Your task to perform on an android device: Clear the cart on walmart.com. Add "usb-a to usb-b" to the cart on walmart.com, then select checkout. Image 0: 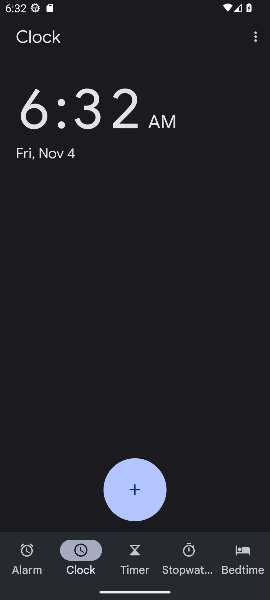
Step 0: press home button
Your task to perform on an android device: Clear the cart on walmart.com. Add "usb-a to usb-b" to the cart on walmart.com, then select checkout. Image 1: 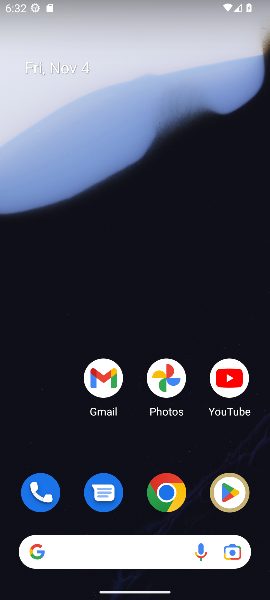
Step 1: drag from (134, 458) to (153, 42)
Your task to perform on an android device: Clear the cart on walmart.com. Add "usb-a to usb-b" to the cart on walmart.com, then select checkout. Image 2: 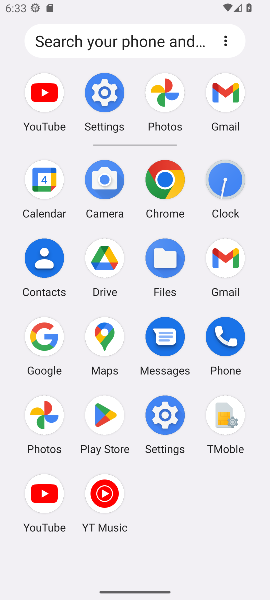
Step 2: click (166, 176)
Your task to perform on an android device: Clear the cart on walmart.com. Add "usb-a to usb-b" to the cart on walmart.com, then select checkout. Image 3: 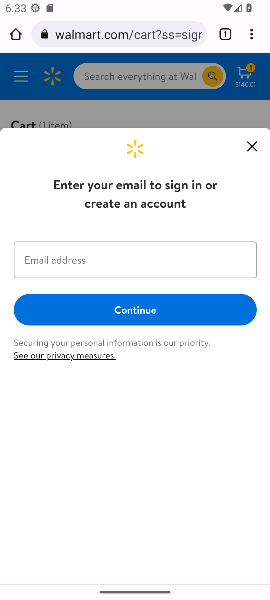
Step 3: click (148, 29)
Your task to perform on an android device: Clear the cart on walmart.com. Add "usb-a to usb-b" to the cart on walmart.com, then select checkout. Image 4: 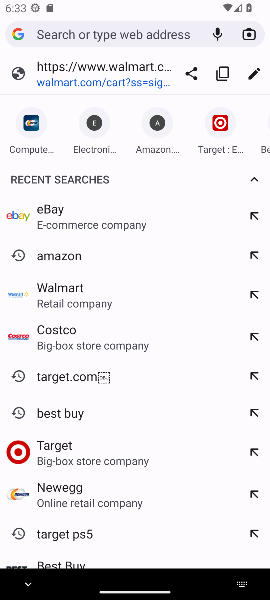
Step 4: type "walmart.com"
Your task to perform on an android device: Clear the cart on walmart.com. Add "usb-a to usb-b" to the cart on walmart.com, then select checkout. Image 5: 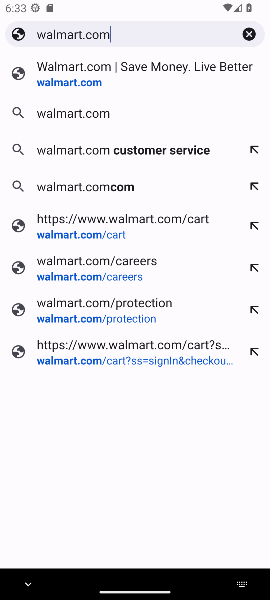
Step 5: press enter
Your task to perform on an android device: Clear the cart on walmart.com. Add "usb-a to usb-b" to the cart on walmart.com, then select checkout. Image 6: 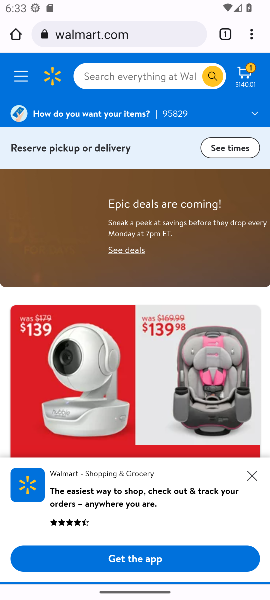
Step 6: click (142, 76)
Your task to perform on an android device: Clear the cart on walmart.com. Add "usb-a to usb-b" to the cart on walmart.com, then select checkout. Image 7: 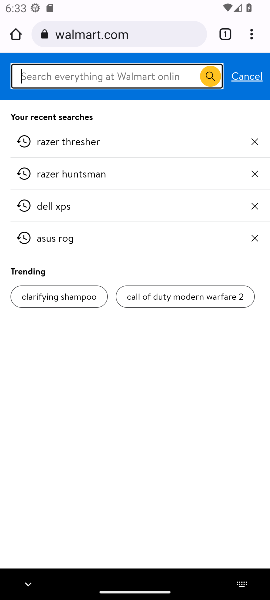
Step 7: type "usb-a to usb-b"
Your task to perform on an android device: Clear the cart on walmart.com. Add "usb-a to usb-b" to the cart on walmart.com, then select checkout. Image 8: 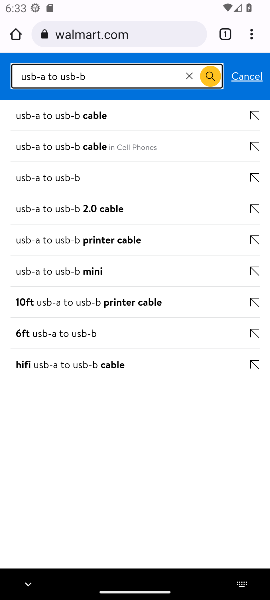
Step 8: press enter
Your task to perform on an android device: Clear the cart on walmart.com. Add "usb-a to usb-b" to the cart on walmart.com, then select checkout. Image 9: 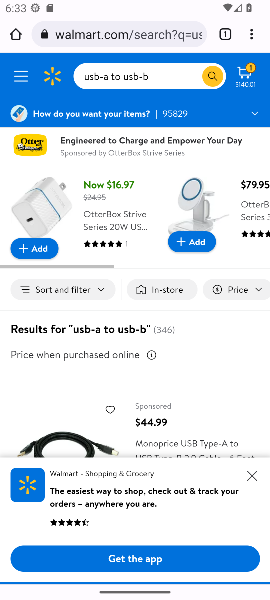
Step 9: drag from (217, 421) to (217, 67)
Your task to perform on an android device: Clear the cart on walmart.com. Add "usb-a to usb-b" to the cart on walmart.com, then select checkout. Image 10: 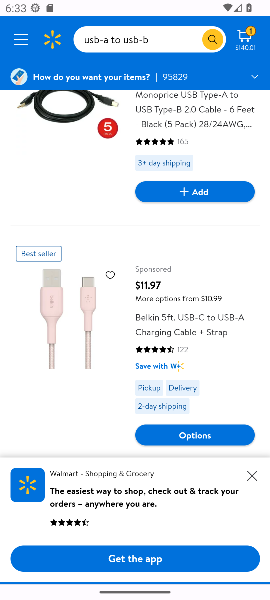
Step 10: click (246, 39)
Your task to perform on an android device: Clear the cart on walmart.com. Add "usb-a to usb-b" to the cart on walmart.com, then select checkout. Image 11: 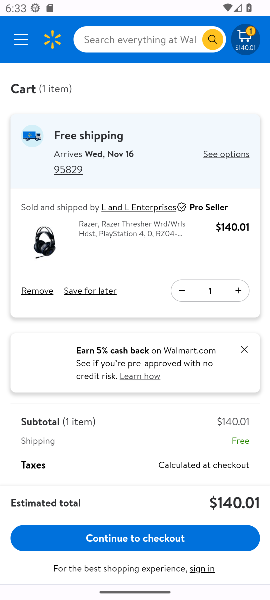
Step 11: click (41, 292)
Your task to perform on an android device: Clear the cart on walmart.com. Add "usb-a to usb-b" to the cart on walmart.com, then select checkout. Image 12: 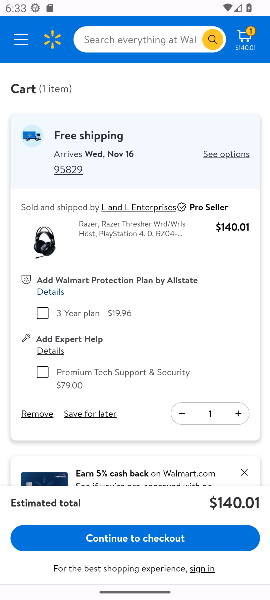
Step 12: click (46, 406)
Your task to perform on an android device: Clear the cart on walmart.com. Add "usb-a to usb-b" to the cart on walmart.com, then select checkout. Image 13: 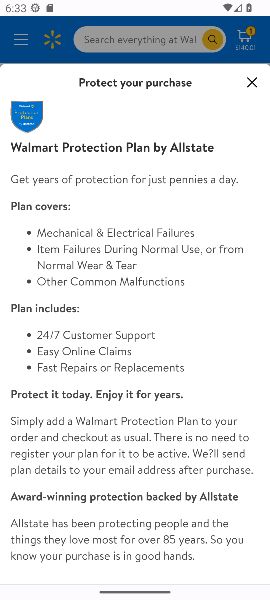
Step 13: click (38, 412)
Your task to perform on an android device: Clear the cart on walmart.com. Add "usb-a to usb-b" to the cart on walmart.com, then select checkout. Image 14: 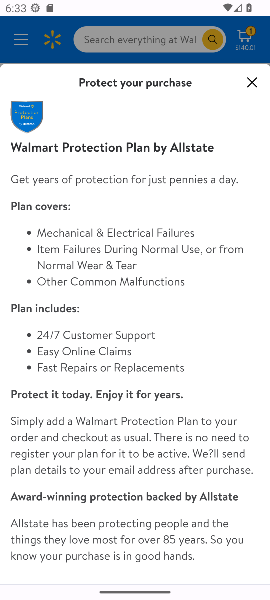
Step 14: click (250, 83)
Your task to perform on an android device: Clear the cart on walmart.com. Add "usb-a to usb-b" to the cart on walmart.com, then select checkout. Image 15: 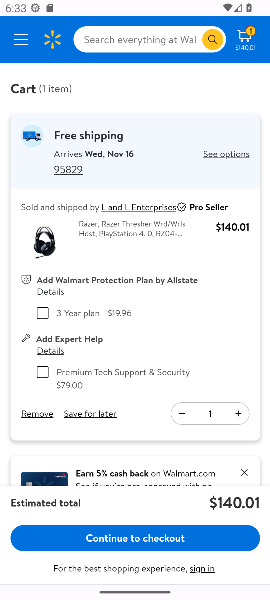
Step 15: click (36, 416)
Your task to perform on an android device: Clear the cart on walmart.com. Add "usb-a to usb-b" to the cart on walmart.com, then select checkout. Image 16: 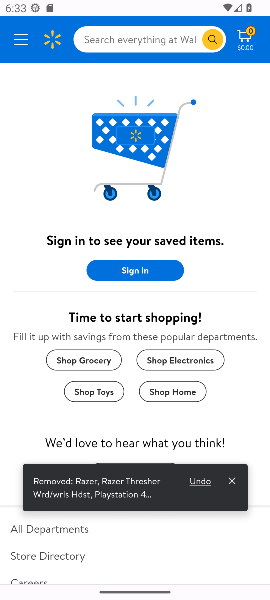
Step 16: click (133, 47)
Your task to perform on an android device: Clear the cart on walmart.com. Add "usb-a to usb-b" to the cart on walmart.com, then select checkout. Image 17: 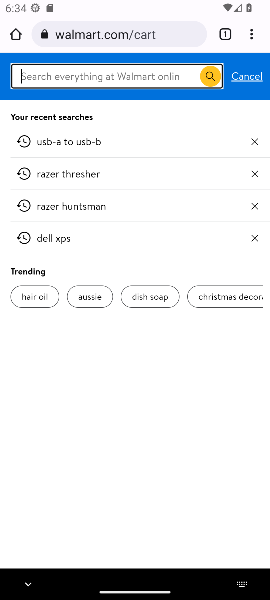
Step 17: type "usb-a to usb-b"
Your task to perform on an android device: Clear the cart on walmart.com. Add "usb-a to usb-b" to the cart on walmart.com, then select checkout. Image 18: 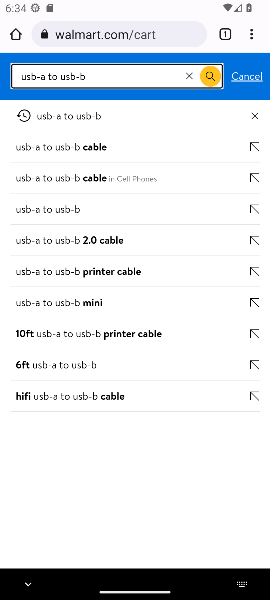
Step 18: press enter
Your task to perform on an android device: Clear the cart on walmart.com. Add "usb-a to usb-b" to the cart on walmart.com, then select checkout. Image 19: 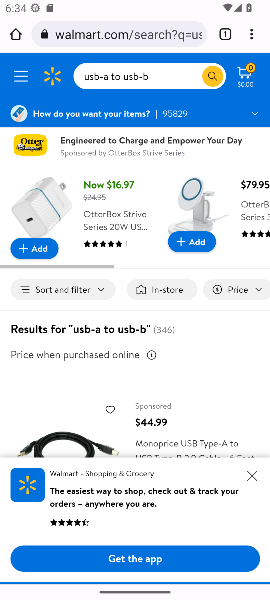
Step 19: drag from (165, 402) to (161, 59)
Your task to perform on an android device: Clear the cart on walmart.com. Add "usb-a to usb-b" to the cart on walmart.com, then select checkout. Image 20: 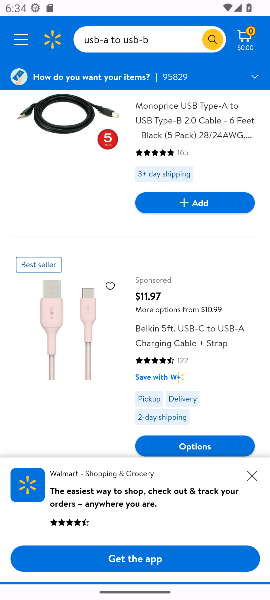
Step 20: drag from (155, 403) to (171, 85)
Your task to perform on an android device: Clear the cart on walmart.com. Add "usb-a to usb-b" to the cart on walmart.com, then select checkout. Image 21: 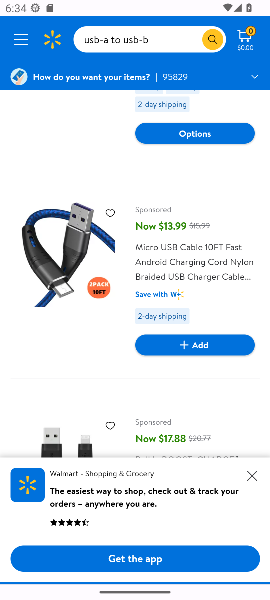
Step 21: drag from (159, 411) to (172, 114)
Your task to perform on an android device: Clear the cart on walmart.com. Add "usb-a to usb-b" to the cart on walmart.com, then select checkout. Image 22: 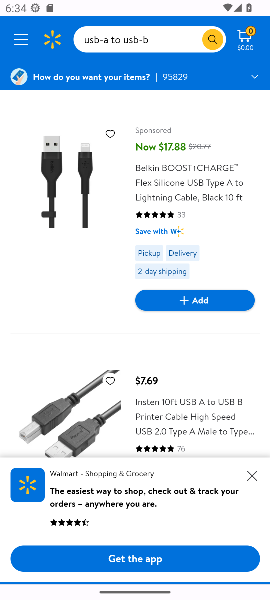
Step 22: drag from (184, 387) to (199, 237)
Your task to perform on an android device: Clear the cart on walmart.com. Add "usb-a to usb-b" to the cart on walmart.com, then select checkout. Image 23: 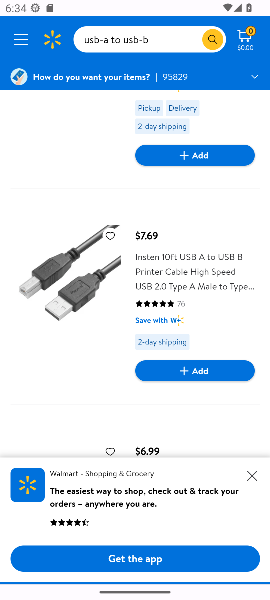
Step 23: click (205, 374)
Your task to perform on an android device: Clear the cart on walmart.com. Add "usb-a to usb-b" to the cart on walmart.com, then select checkout. Image 24: 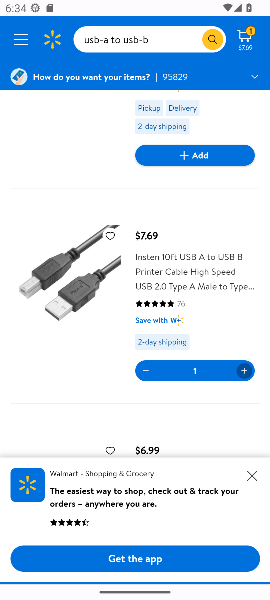
Step 24: click (249, 40)
Your task to perform on an android device: Clear the cart on walmart.com. Add "usb-a to usb-b" to the cart on walmart.com, then select checkout. Image 25: 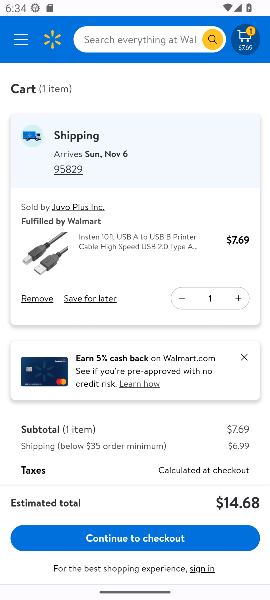
Step 25: click (162, 535)
Your task to perform on an android device: Clear the cart on walmart.com. Add "usb-a to usb-b" to the cart on walmart.com, then select checkout. Image 26: 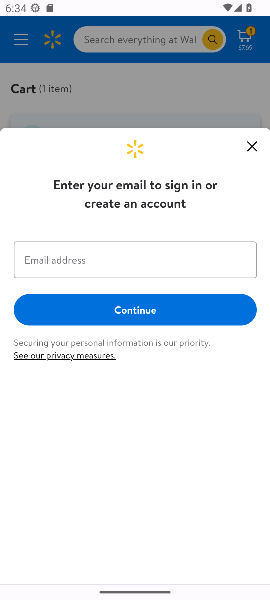
Step 26: task complete